Your task to perform on an android device: check android version Image 0: 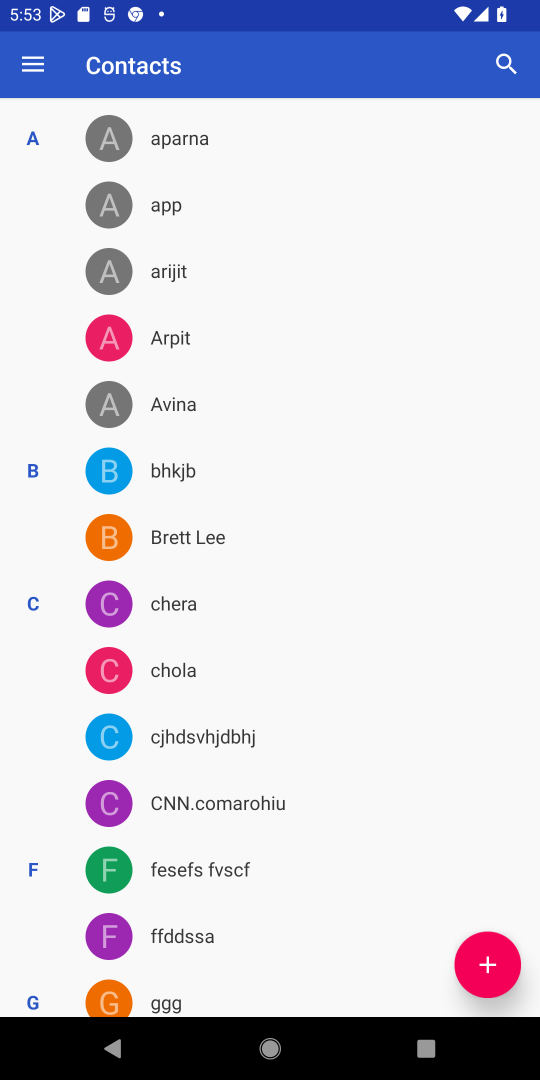
Step 0: press home button
Your task to perform on an android device: check android version Image 1: 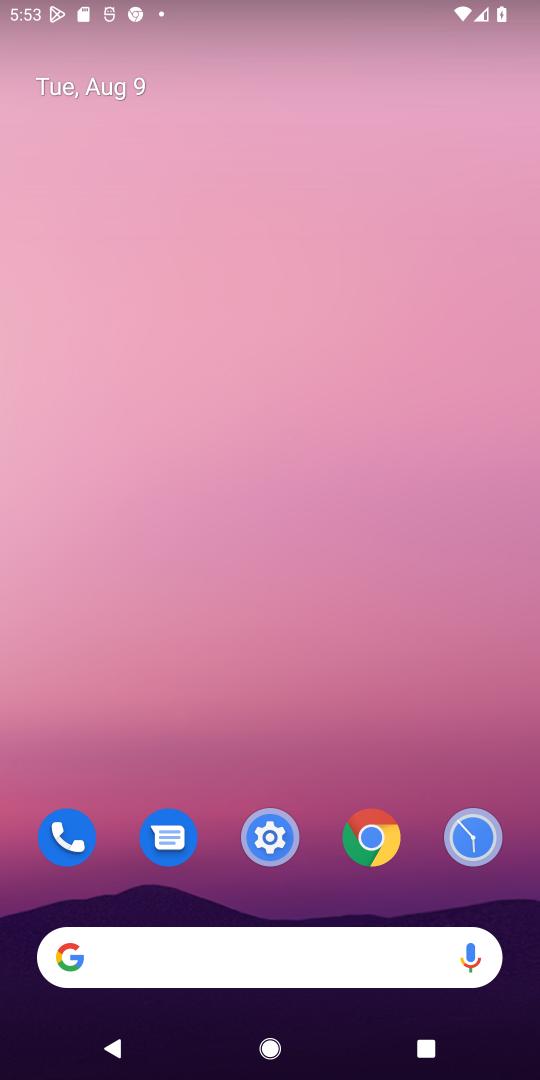
Step 1: drag from (124, 915) to (201, 448)
Your task to perform on an android device: check android version Image 2: 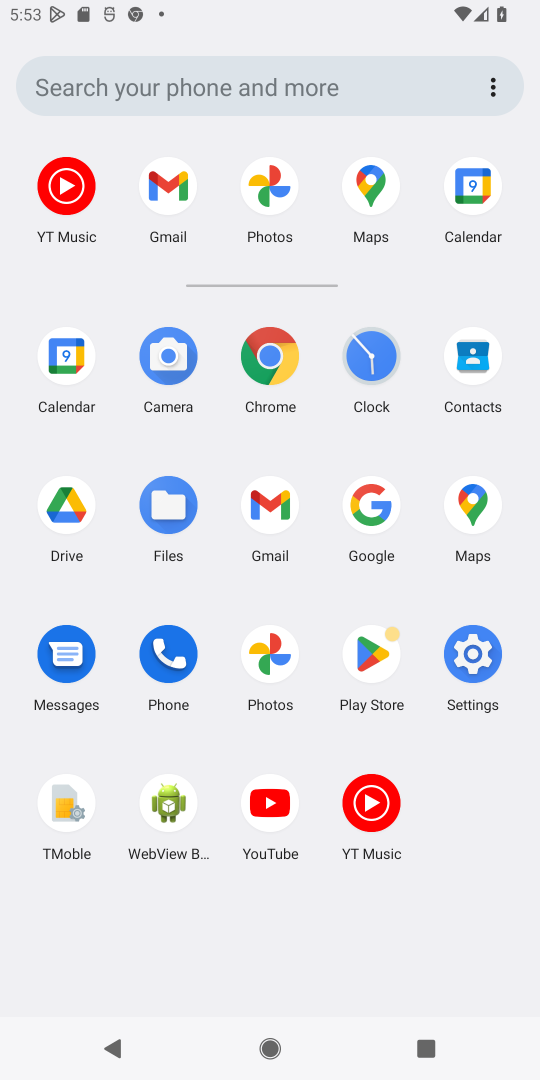
Step 2: click (469, 652)
Your task to perform on an android device: check android version Image 3: 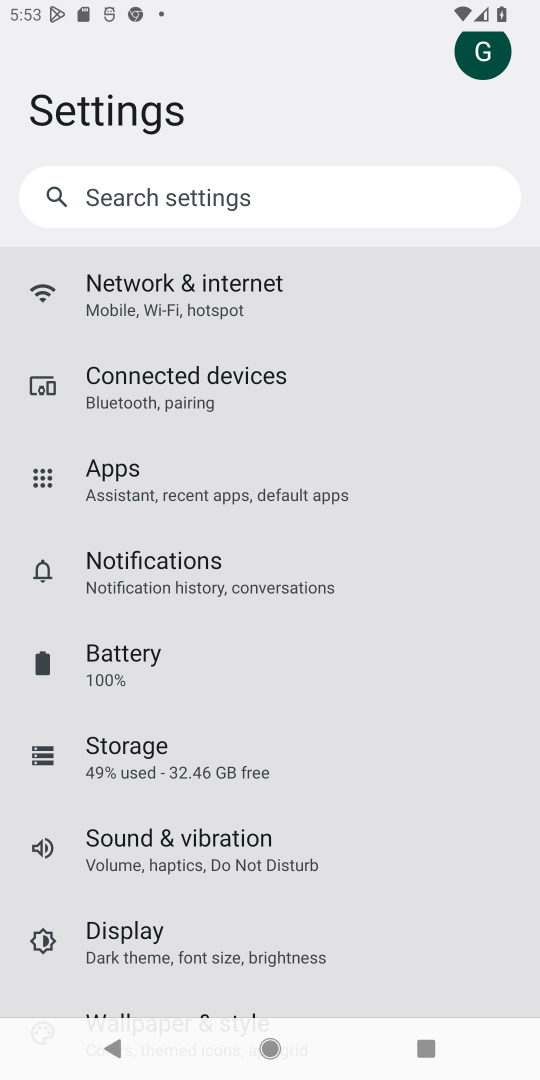
Step 3: drag from (214, 896) to (286, 394)
Your task to perform on an android device: check android version Image 4: 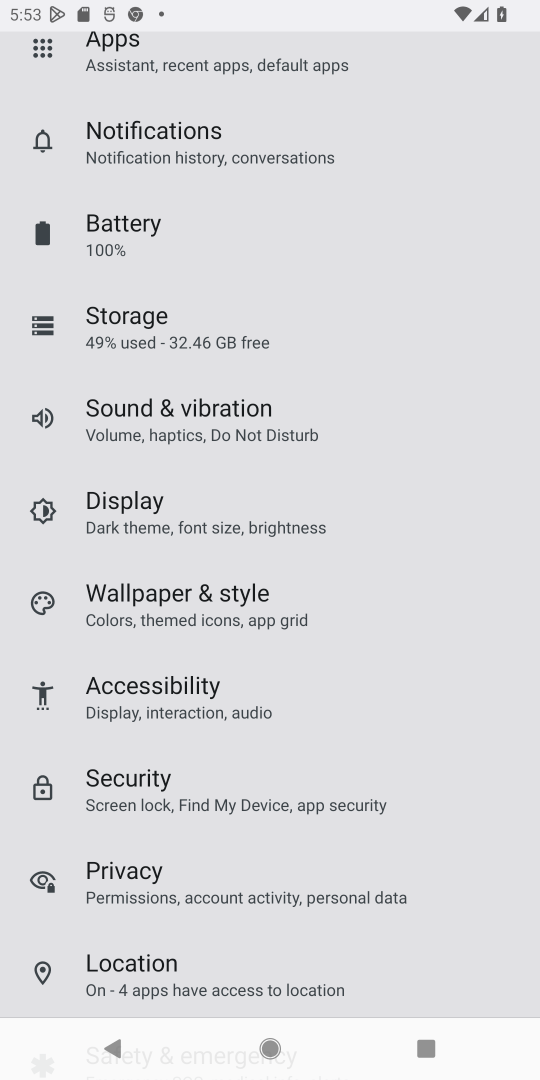
Step 4: drag from (205, 938) to (245, 327)
Your task to perform on an android device: check android version Image 5: 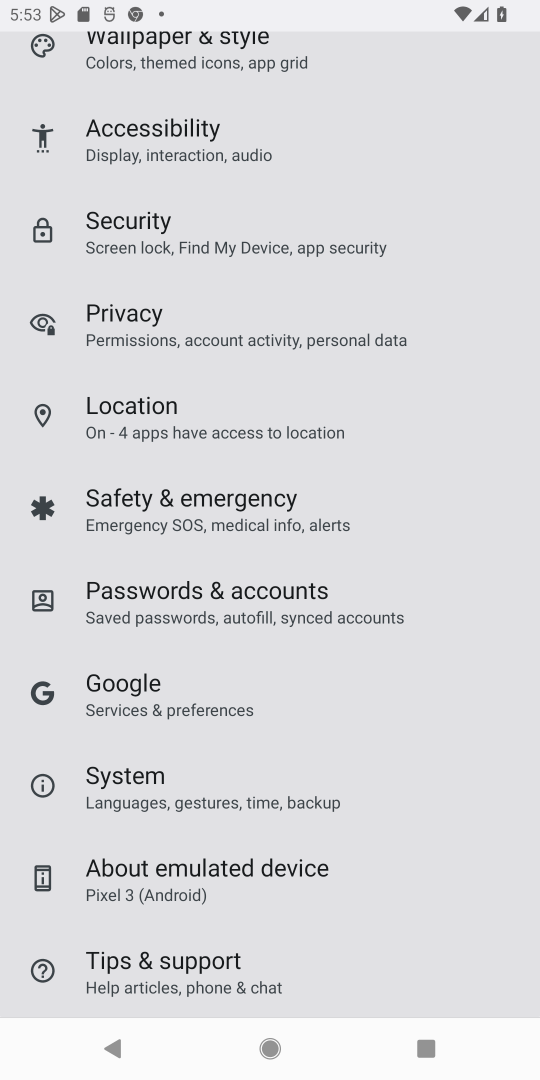
Step 5: click (219, 875)
Your task to perform on an android device: check android version Image 6: 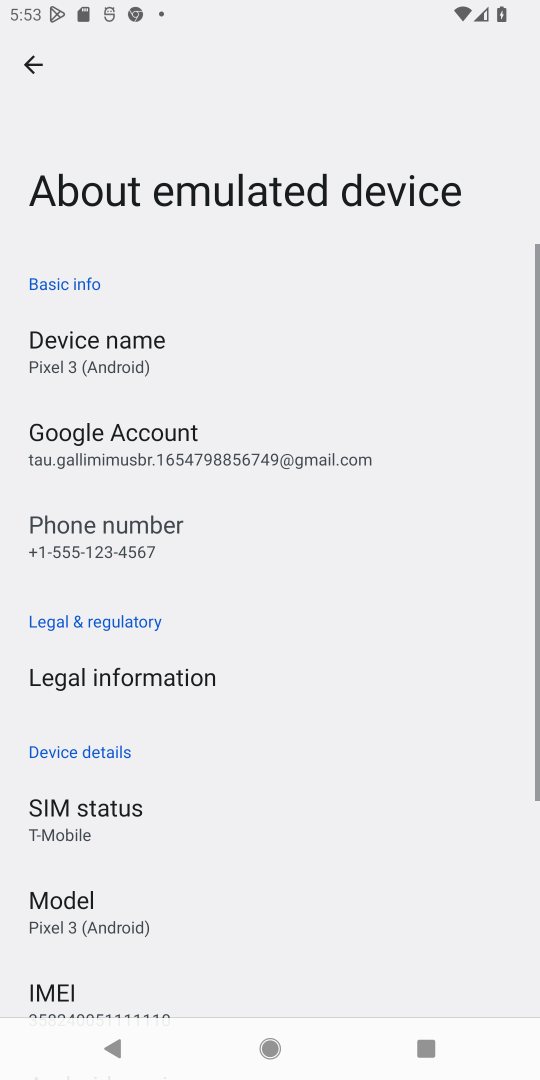
Step 6: drag from (118, 973) to (185, 368)
Your task to perform on an android device: check android version Image 7: 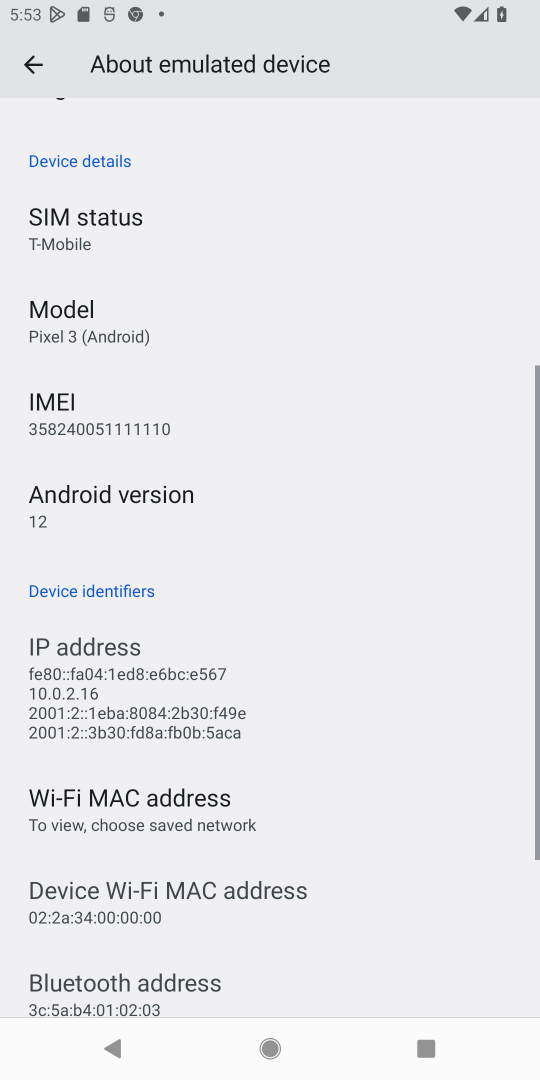
Step 7: click (64, 487)
Your task to perform on an android device: check android version Image 8: 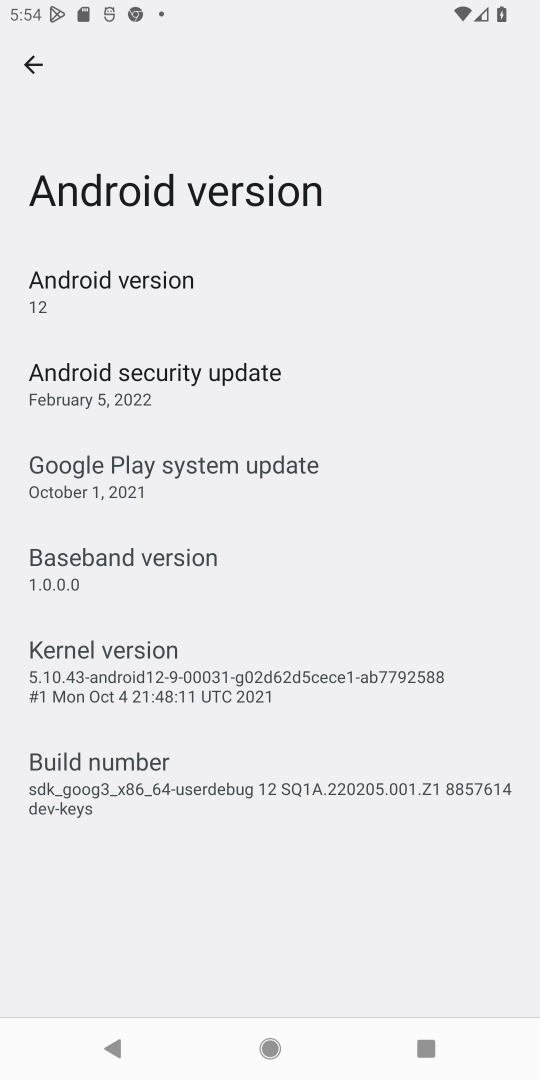
Step 8: task complete